Your task to perform on an android device: remove spam from my inbox in the gmail app Image 0: 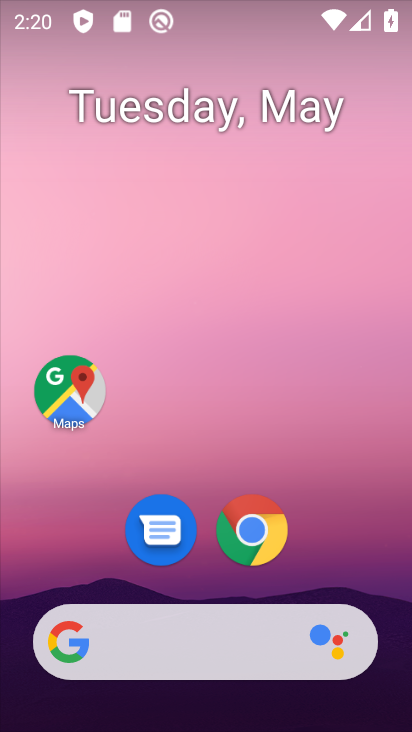
Step 0: drag from (82, 731) to (234, 194)
Your task to perform on an android device: remove spam from my inbox in the gmail app Image 1: 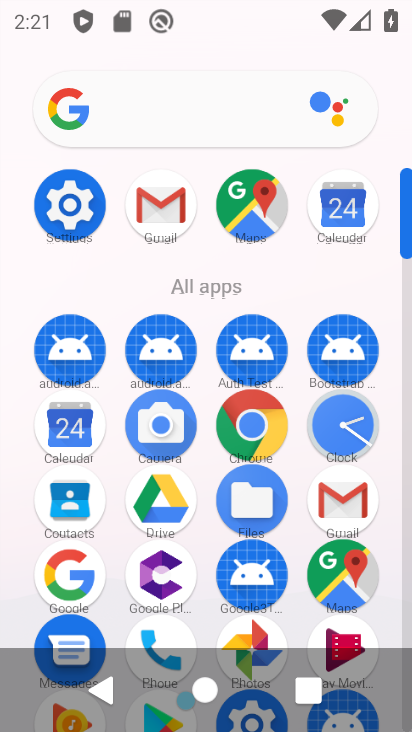
Step 1: click (129, 220)
Your task to perform on an android device: remove spam from my inbox in the gmail app Image 2: 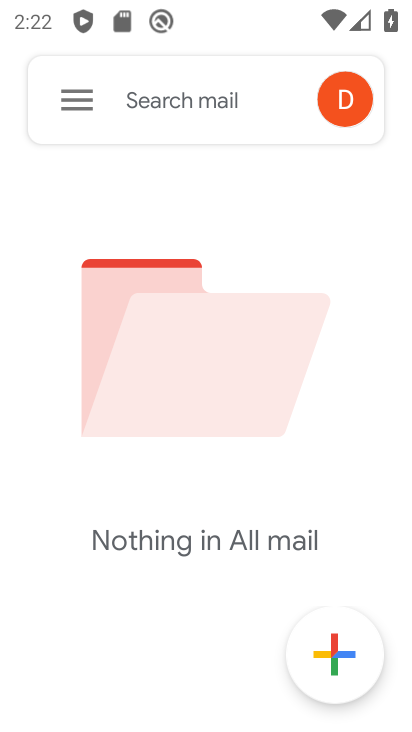
Step 2: click (82, 112)
Your task to perform on an android device: remove spam from my inbox in the gmail app Image 3: 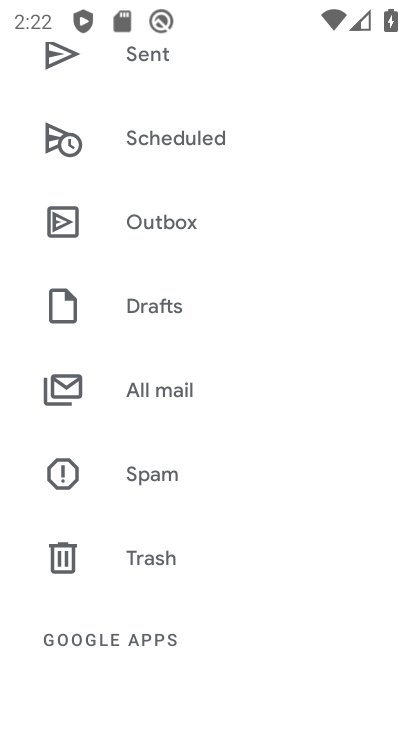
Step 3: click (131, 454)
Your task to perform on an android device: remove spam from my inbox in the gmail app Image 4: 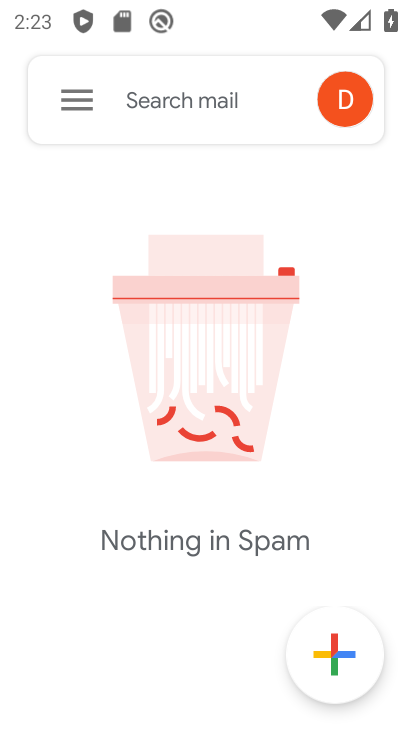
Step 4: task complete